Your task to perform on an android device: turn on translation in the chrome app Image 0: 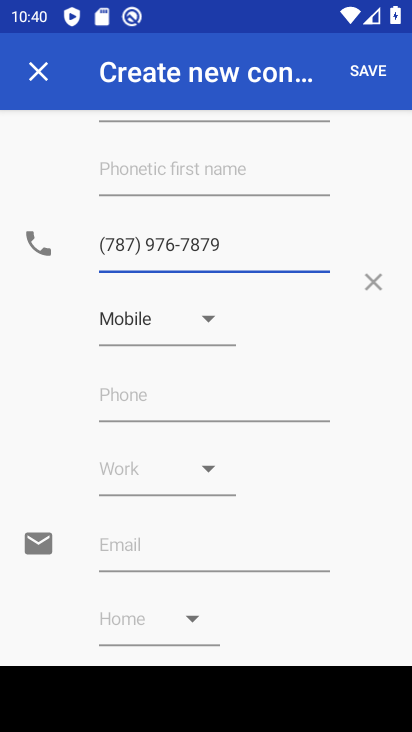
Step 0: press home button
Your task to perform on an android device: turn on translation in the chrome app Image 1: 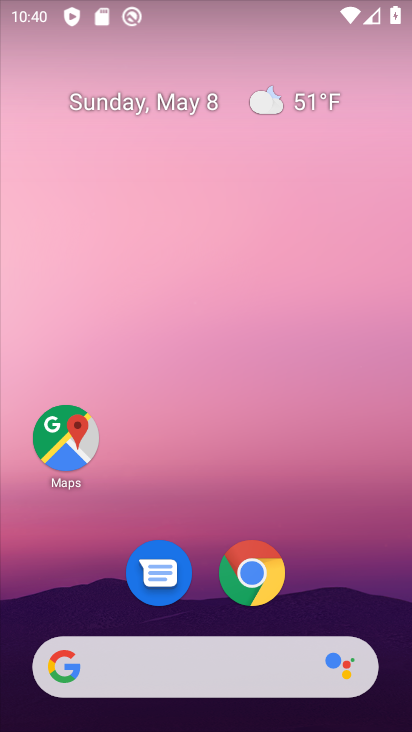
Step 1: click (252, 573)
Your task to perform on an android device: turn on translation in the chrome app Image 2: 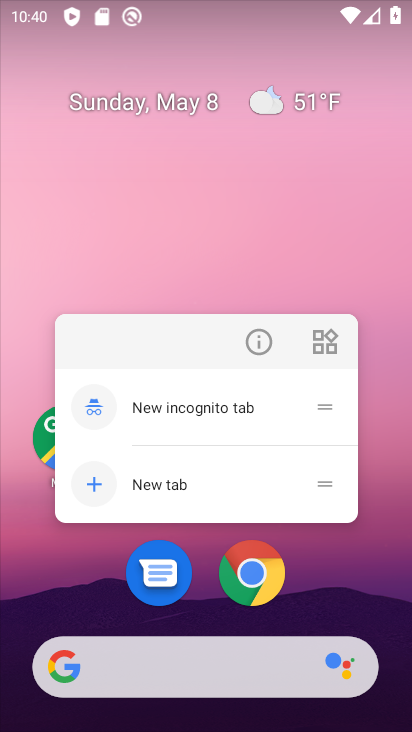
Step 2: click (256, 570)
Your task to perform on an android device: turn on translation in the chrome app Image 3: 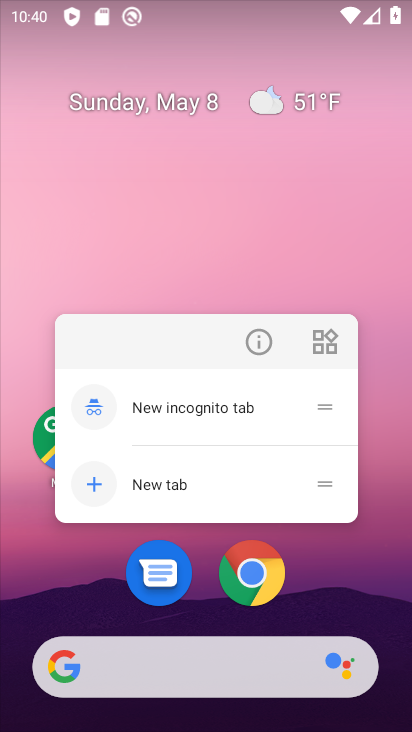
Step 3: click (113, 630)
Your task to perform on an android device: turn on translation in the chrome app Image 4: 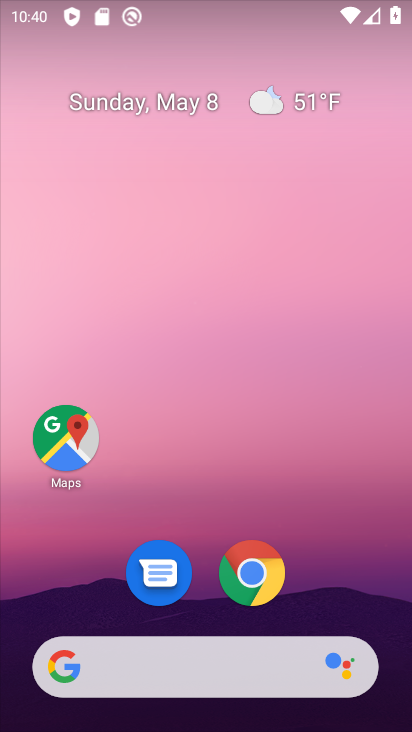
Step 4: drag from (113, 630) to (113, 226)
Your task to perform on an android device: turn on translation in the chrome app Image 5: 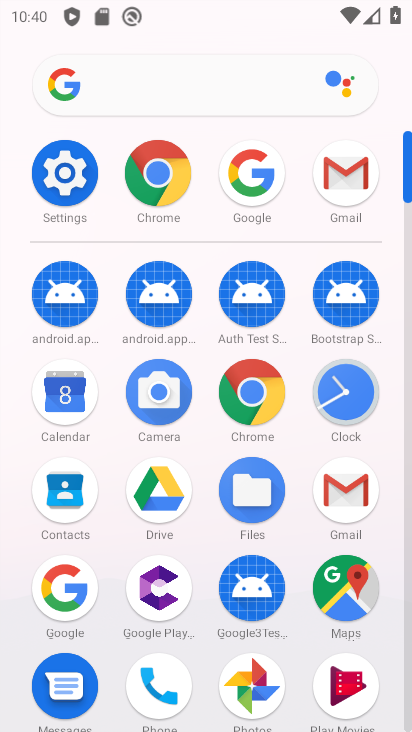
Step 5: click (169, 176)
Your task to perform on an android device: turn on translation in the chrome app Image 6: 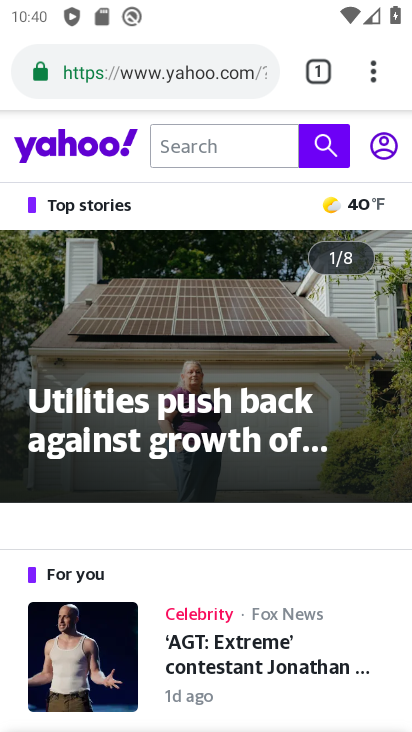
Step 6: click (374, 79)
Your task to perform on an android device: turn on translation in the chrome app Image 7: 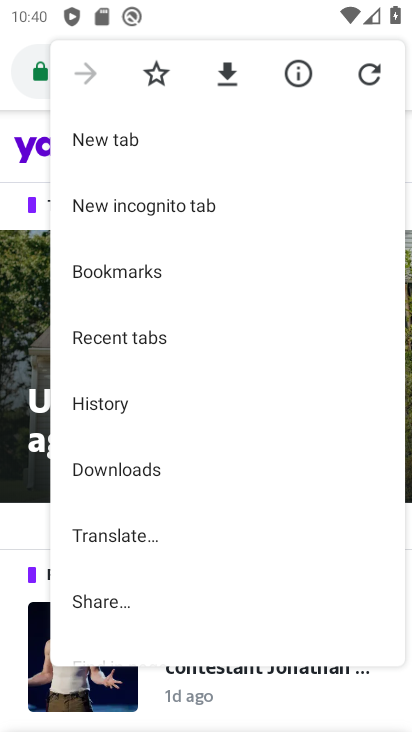
Step 7: drag from (139, 612) to (128, 269)
Your task to perform on an android device: turn on translation in the chrome app Image 8: 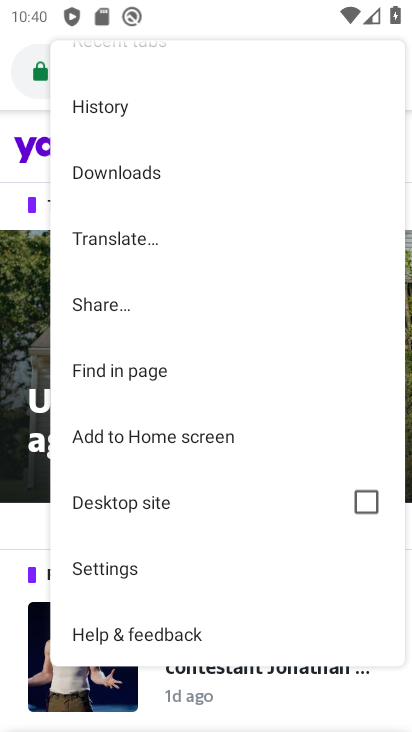
Step 8: click (125, 569)
Your task to perform on an android device: turn on translation in the chrome app Image 9: 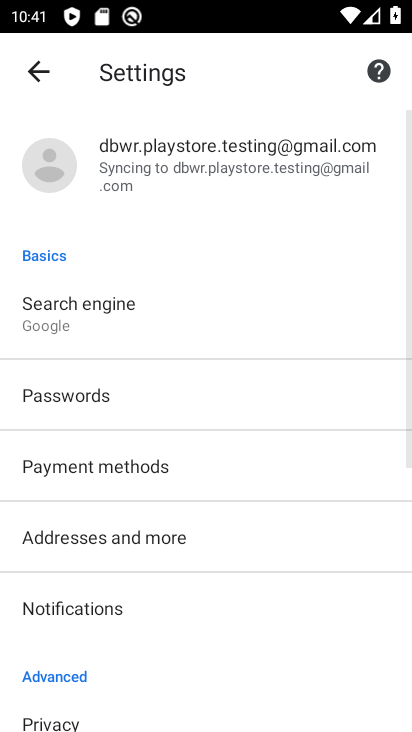
Step 9: drag from (111, 697) to (104, 365)
Your task to perform on an android device: turn on translation in the chrome app Image 10: 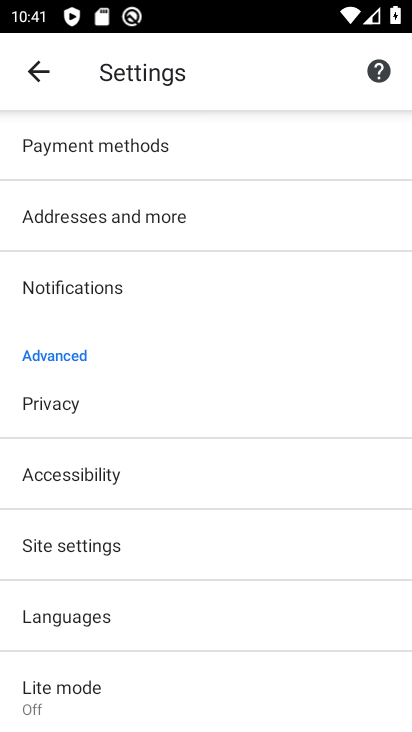
Step 10: click (81, 616)
Your task to perform on an android device: turn on translation in the chrome app Image 11: 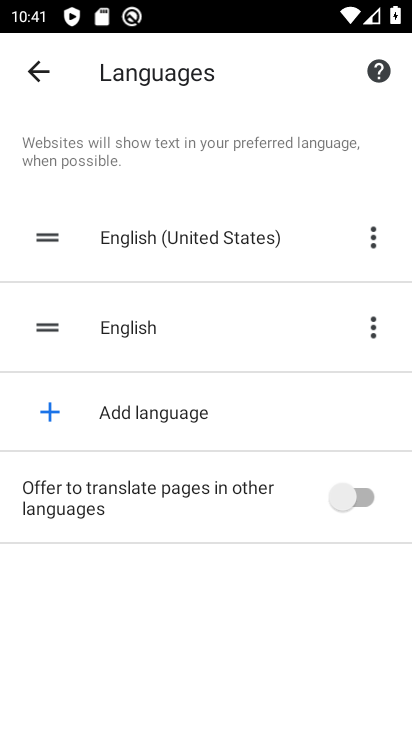
Step 11: click (364, 499)
Your task to perform on an android device: turn on translation in the chrome app Image 12: 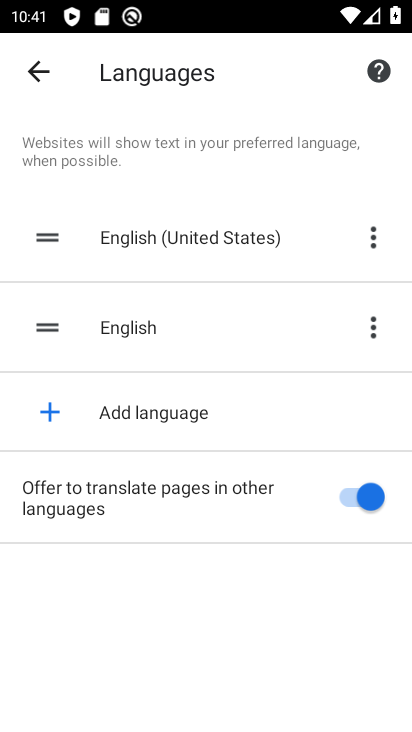
Step 12: task complete